Your task to perform on an android device: Open the calendar app, open the side menu, and click the "Day" option Image 0: 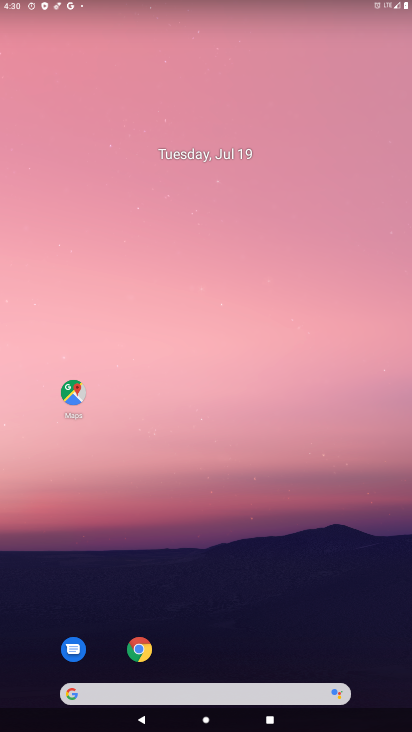
Step 0: drag from (325, 645) to (224, 140)
Your task to perform on an android device: Open the calendar app, open the side menu, and click the "Day" option Image 1: 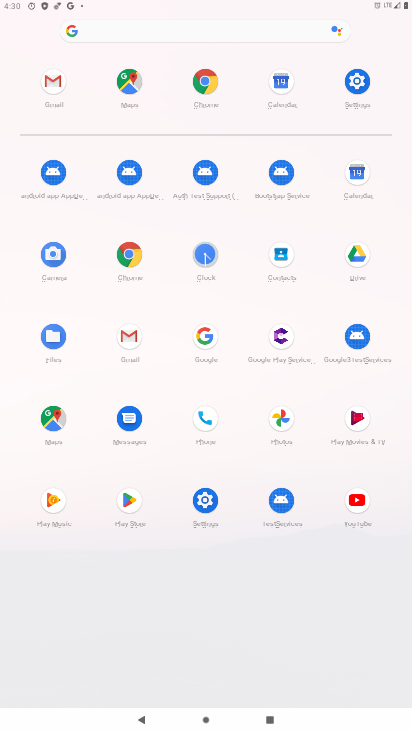
Step 1: click (349, 169)
Your task to perform on an android device: Open the calendar app, open the side menu, and click the "Day" option Image 2: 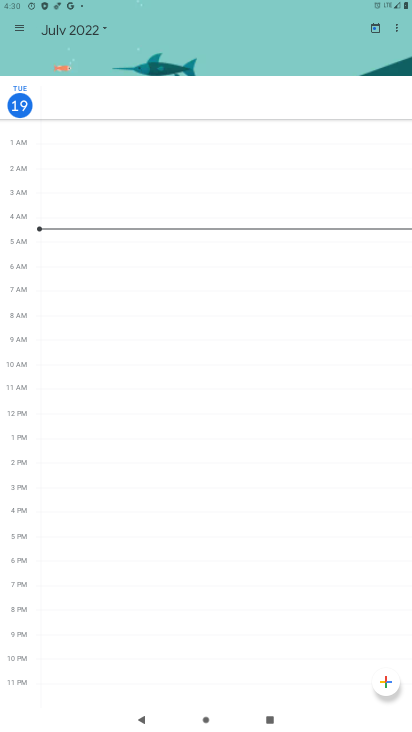
Step 2: task complete